Your task to perform on an android device: turn on data saver in the chrome app Image 0: 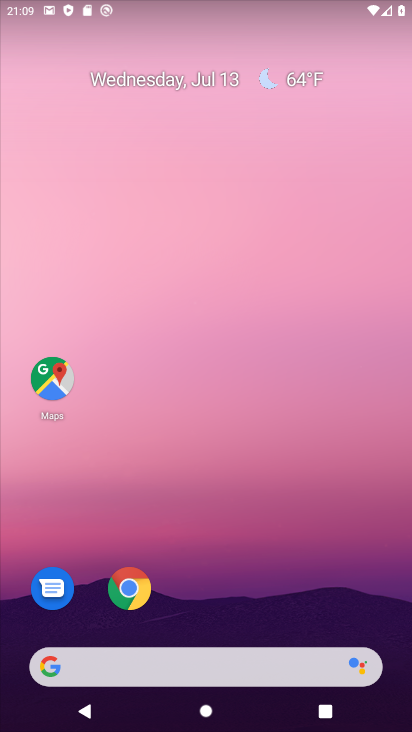
Step 0: click (125, 593)
Your task to perform on an android device: turn on data saver in the chrome app Image 1: 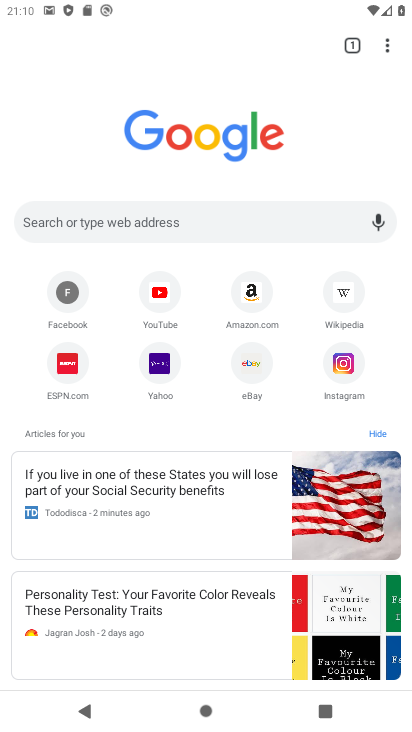
Step 1: drag from (387, 39) to (229, 387)
Your task to perform on an android device: turn on data saver in the chrome app Image 2: 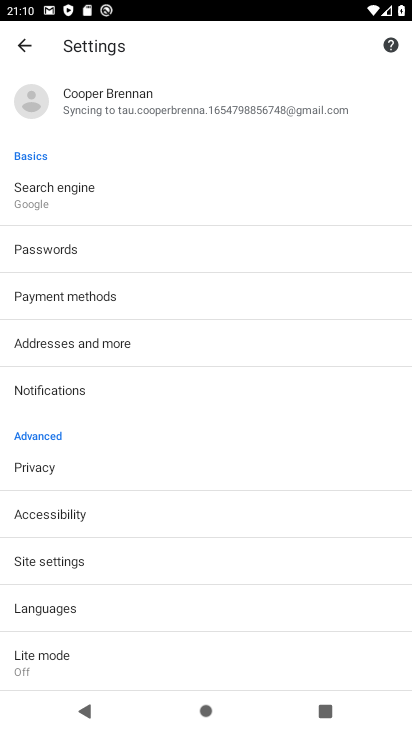
Step 2: click (79, 661)
Your task to perform on an android device: turn on data saver in the chrome app Image 3: 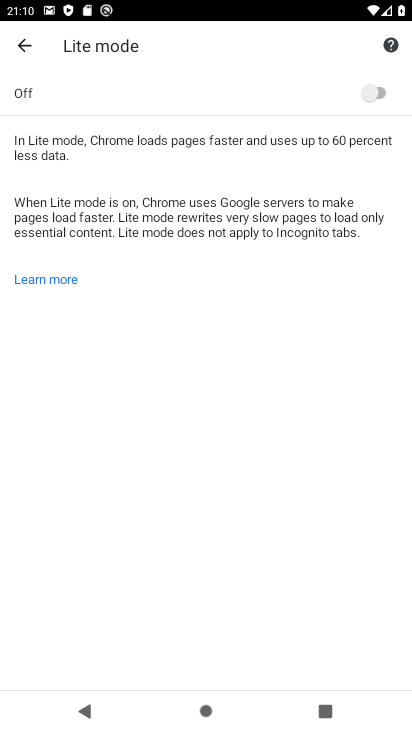
Step 3: click (362, 89)
Your task to perform on an android device: turn on data saver in the chrome app Image 4: 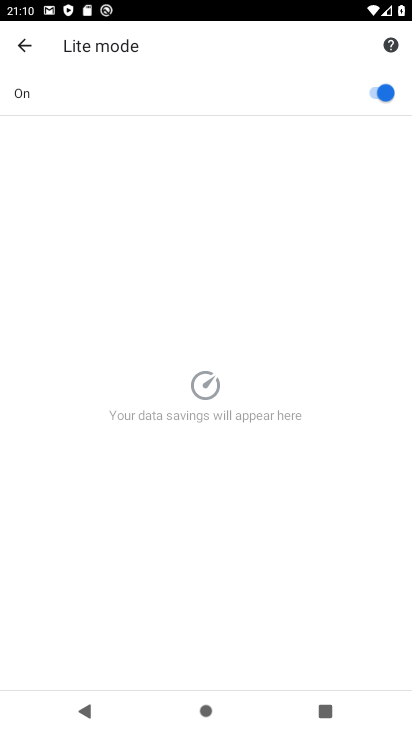
Step 4: task complete